Your task to perform on an android device: turn on the 12-hour format for clock Image 0: 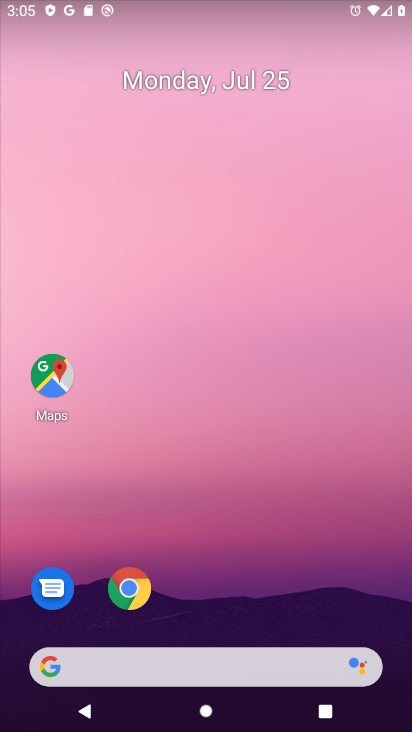
Step 0: press home button
Your task to perform on an android device: turn on the 12-hour format for clock Image 1: 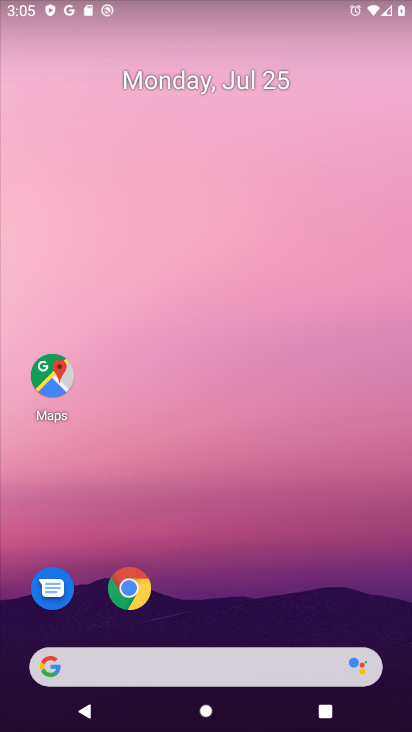
Step 1: drag from (202, 623) to (200, 212)
Your task to perform on an android device: turn on the 12-hour format for clock Image 2: 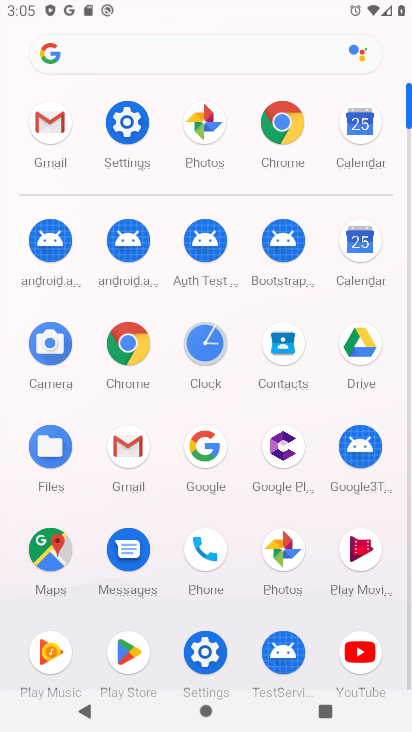
Step 2: click (201, 347)
Your task to perform on an android device: turn on the 12-hour format for clock Image 3: 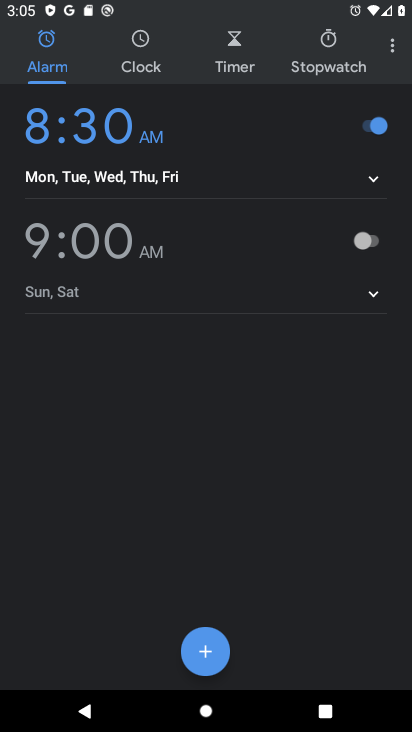
Step 3: click (396, 43)
Your task to perform on an android device: turn on the 12-hour format for clock Image 4: 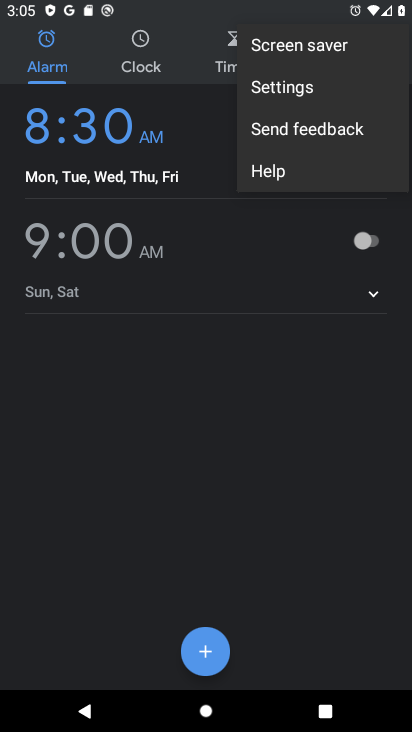
Step 4: click (314, 84)
Your task to perform on an android device: turn on the 12-hour format for clock Image 5: 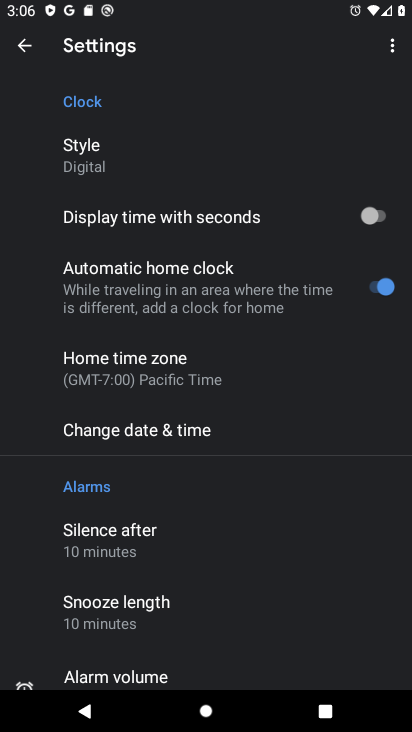
Step 5: click (201, 426)
Your task to perform on an android device: turn on the 12-hour format for clock Image 6: 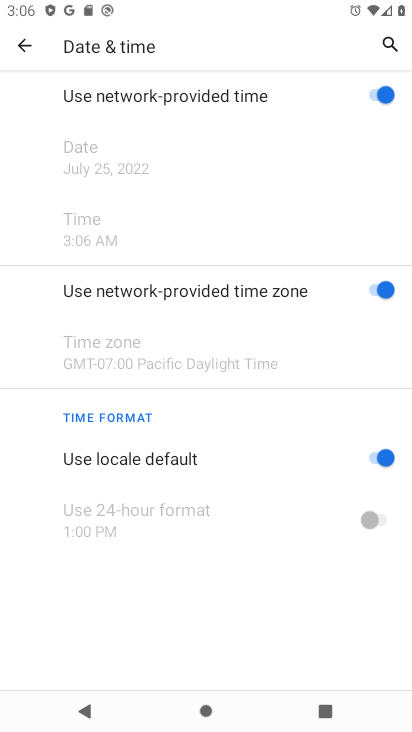
Step 6: task complete